Your task to perform on an android device: Open Chrome and go to the settings page Image 0: 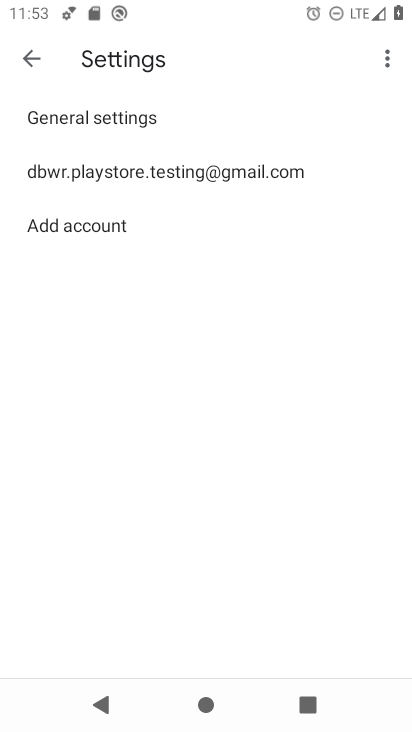
Step 0: press home button
Your task to perform on an android device: Open Chrome and go to the settings page Image 1: 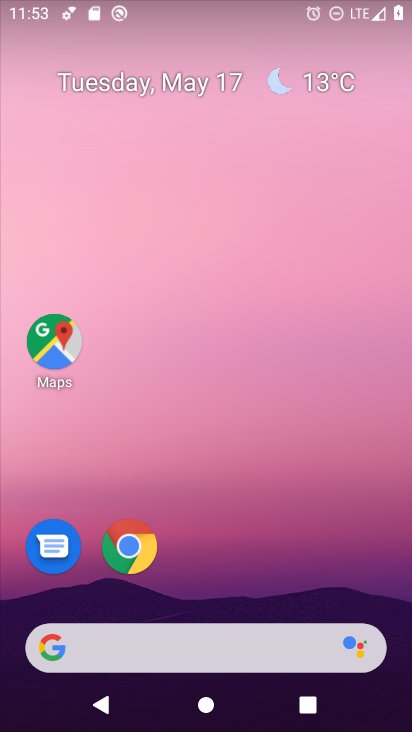
Step 1: click (136, 548)
Your task to perform on an android device: Open Chrome and go to the settings page Image 2: 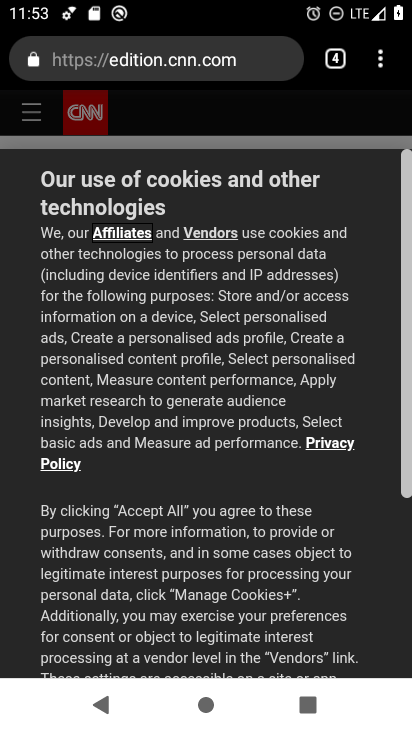
Step 2: click (381, 71)
Your task to perform on an android device: Open Chrome and go to the settings page Image 3: 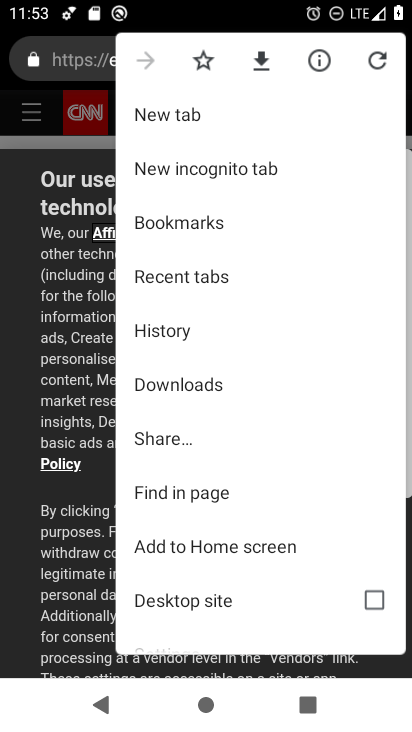
Step 3: drag from (254, 558) to (271, 239)
Your task to perform on an android device: Open Chrome and go to the settings page Image 4: 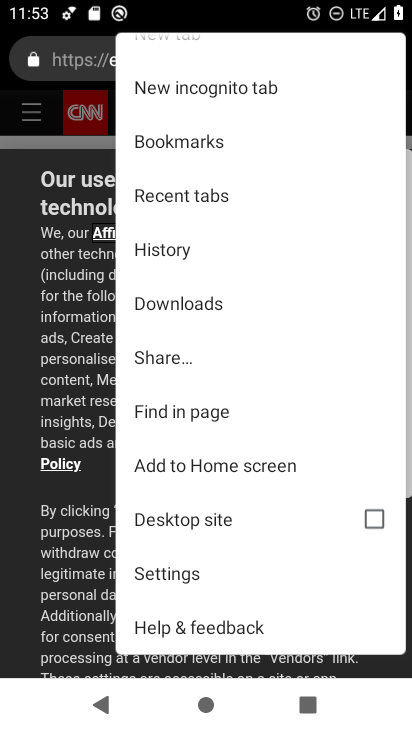
Step 4: click (161, 572)
Your task to perform on an android device: Open Chrome and go to the settings page Image 5: 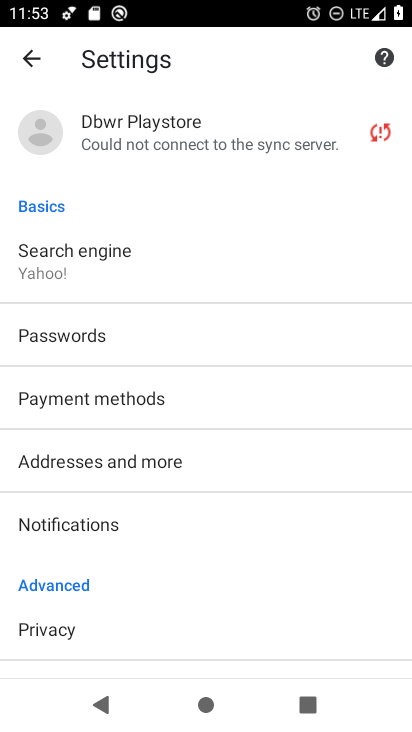
Step 5: task complete